Your task to perform on an android device: open chrome privacy settings Image 0: 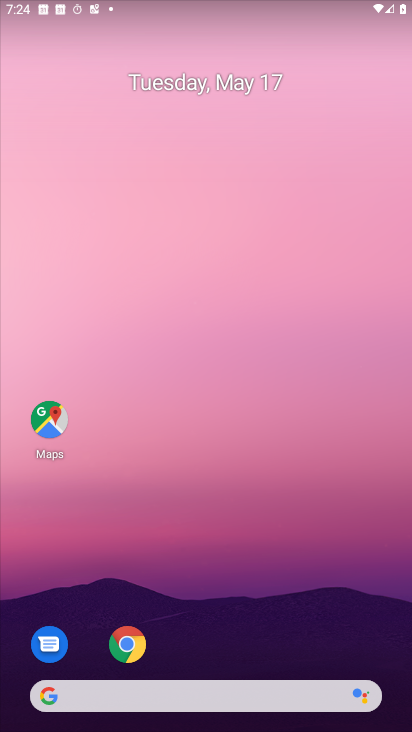
Step 0: drag from (285, 624) to (196, 25)
Your task to perform on an android device: open chrome privacy settings Image 1: 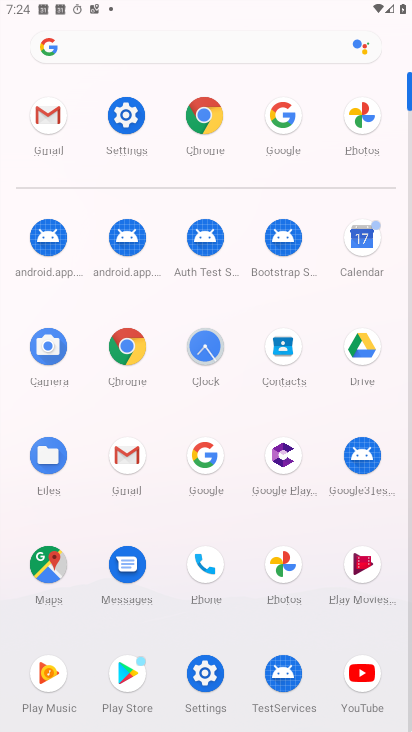
Step 1: click (191, 108)
Your task to perform on an android device: open chrome privacy settings Image 2: 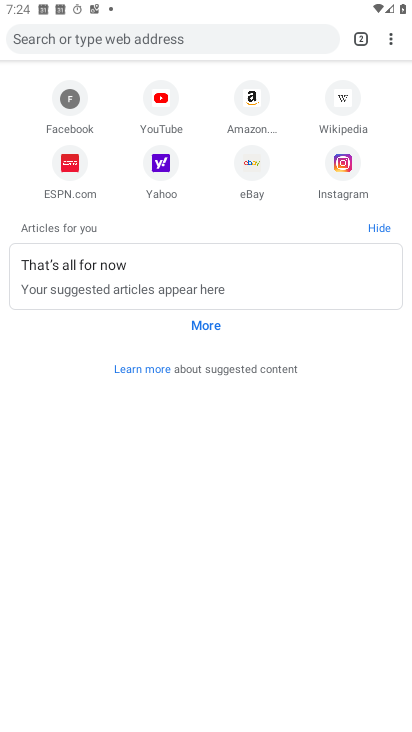
Step 2: click (386, 36)
Your task to perform on an android device: open chrome privacy settings Image 3: 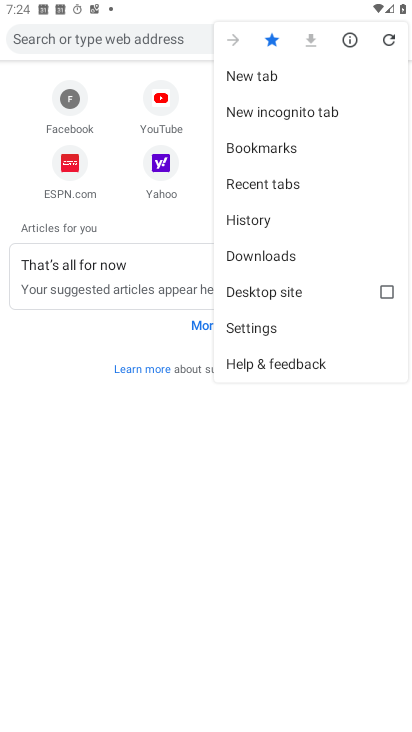
Step 3: click (279, 328)
Your task to perform on an android device: open chrome privacy settings Image 4: 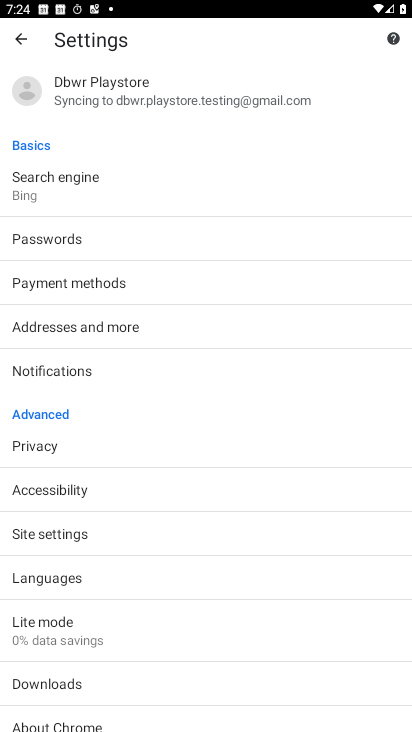
Step 4: drag from (71, 607) to (84, 224)
Your task to perform on an android device: open chrome privacy settings Image 5: 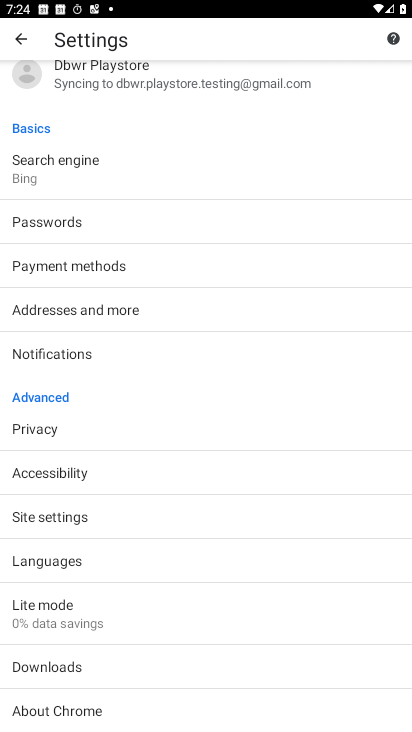
Step 5: click (104, 525)
Your task to perform on an android device: open chrome privacy settings Image 6: 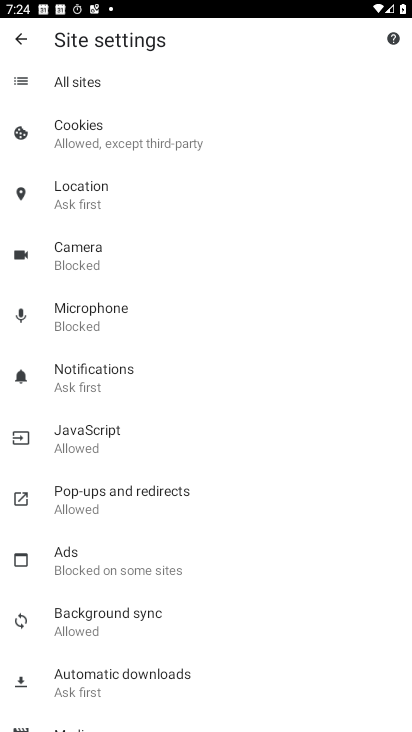
Step 6: press back button
Your task to perform on an android device: open chrome privacy settings Image 7: 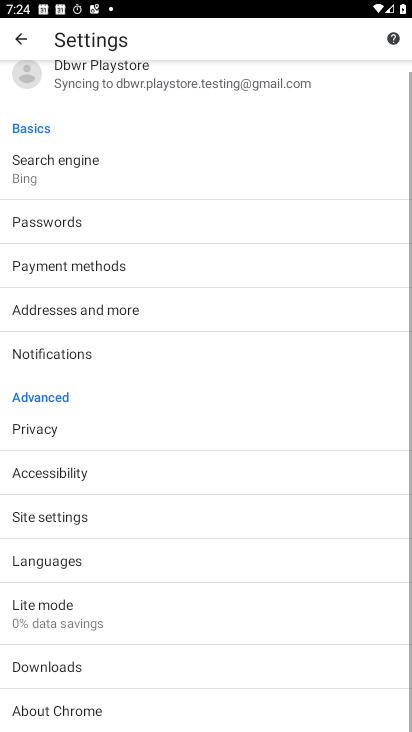
Step 7: click (49, 425)
Your task to perform on an android device: open chrome privacy settings Image 8: 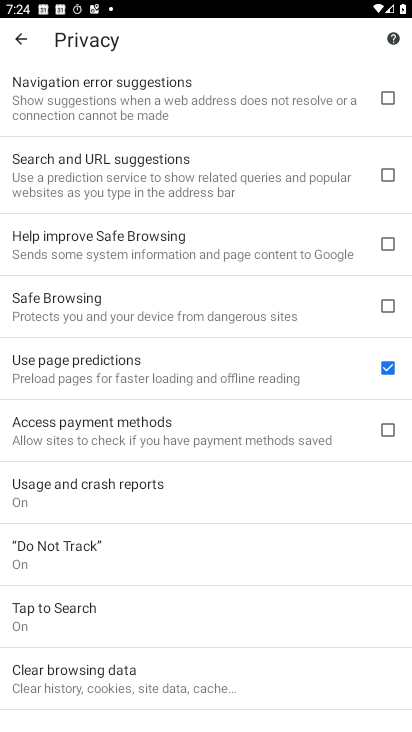
Step 8: task complete